Your task to perform on an android device: Go to Yahoo.com Image 0: 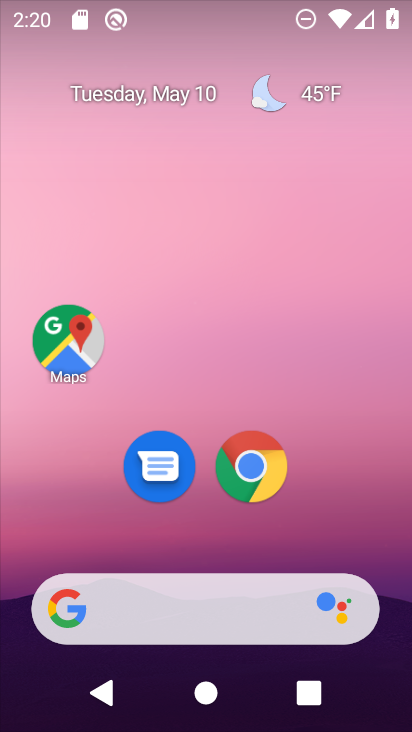
Step 0: click (250, 475)
Your task to perform on an android device: Go to Yahoo.com Image 1: 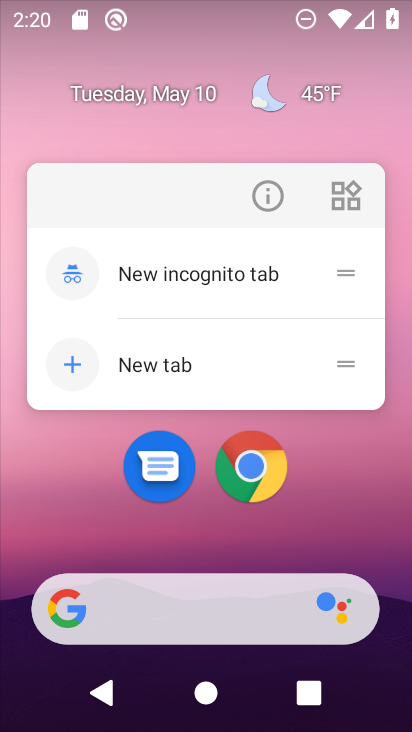
Step 1: click (250, 474)
Your task to perform on an android device: Go to Yahoo.com Image 2: 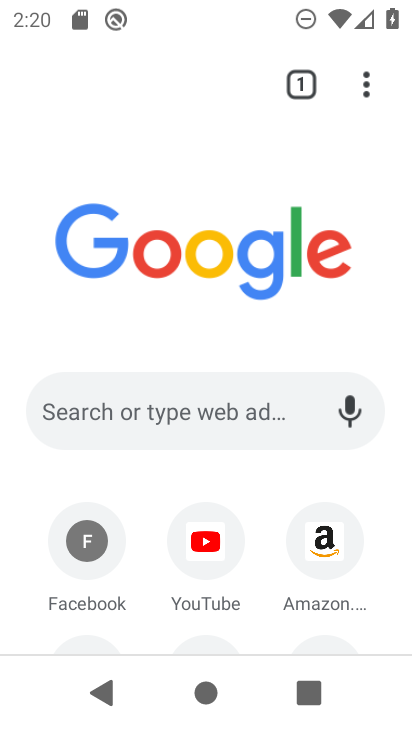
Step 2: drag from (144, 509) to (146, 288)
Your task to perform on an android device: Go to Yahoo.com Image 3: 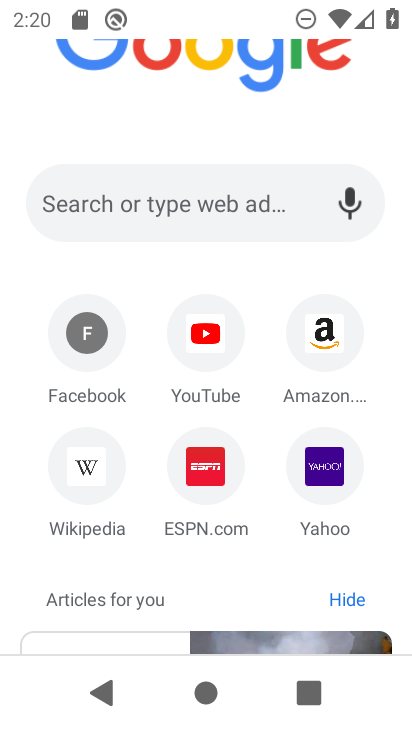
Step 3: click (345, 470)
Your task to perform on an android device: Go to Yahoo.com Image 4: 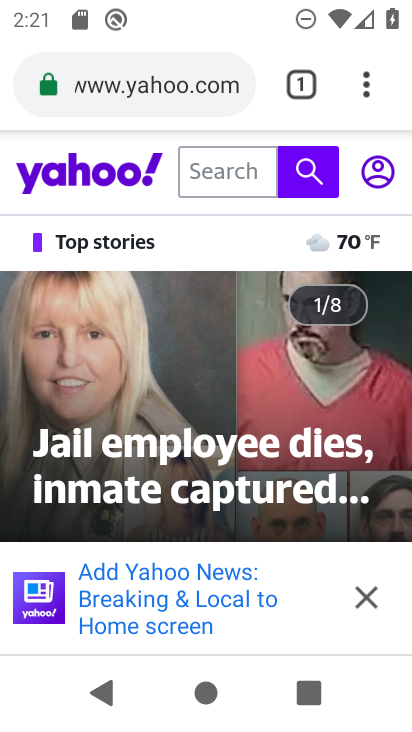
Step 4: task complete